Your task to perform on an android device: change text size in settings app Image 0: 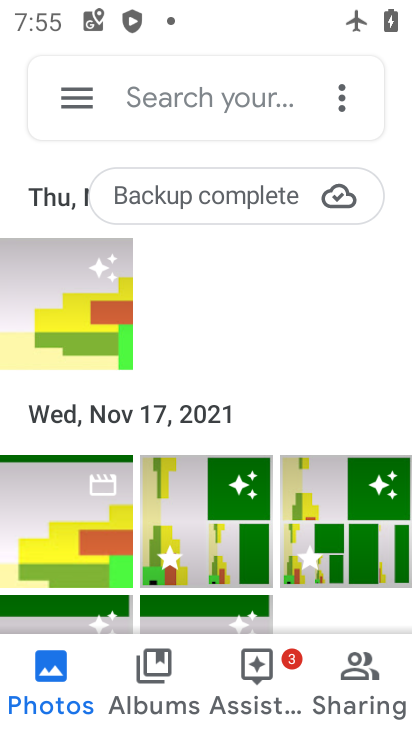
Step 0: press home button
Your task to perform on an android device: change text size in settings app Image 1: 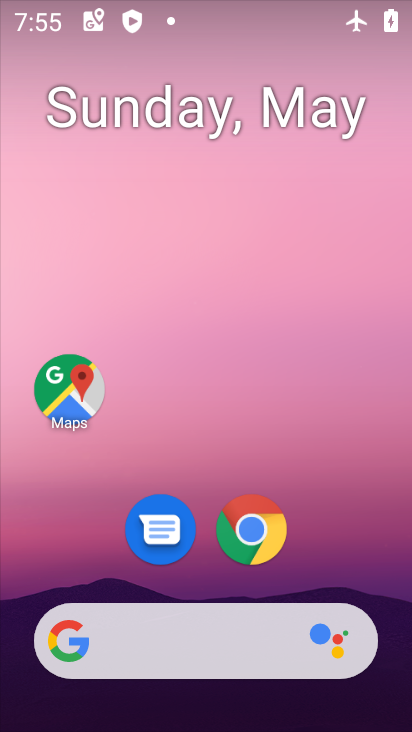
Step 1: drag from (355, 593) to (399, 6)
Your task to perform on an android device: change text size in settings app Image 2: 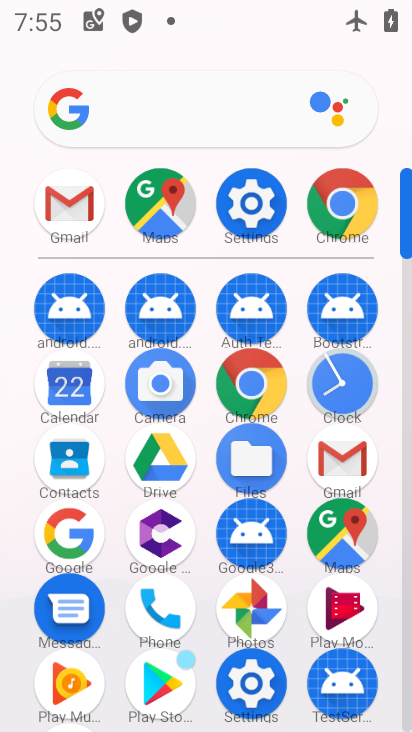
Step 2: click (255, 210)
Your task to perform on an android device: change text size in settings app Image 3: 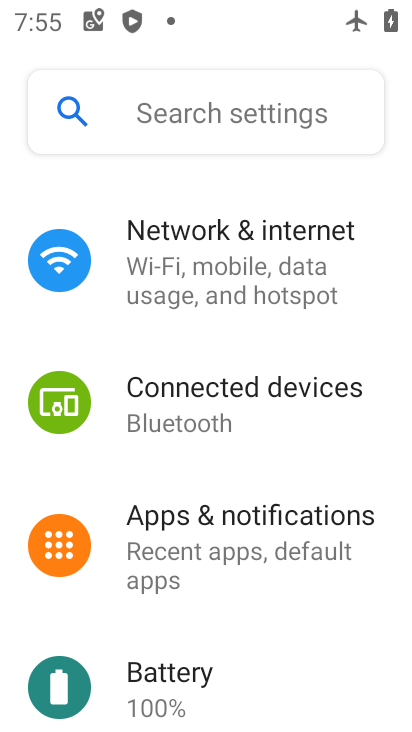
Step 3: drag from (365, 671) to (330, 163)
Your task to perform on an android device: change text size in settings app Image 4: 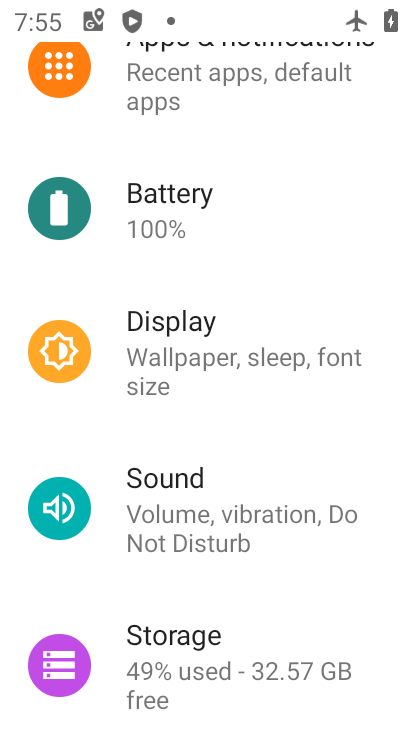
Step 4: click (152, 354)
Your task to perform on an android device: change text size in settings app Image 5: 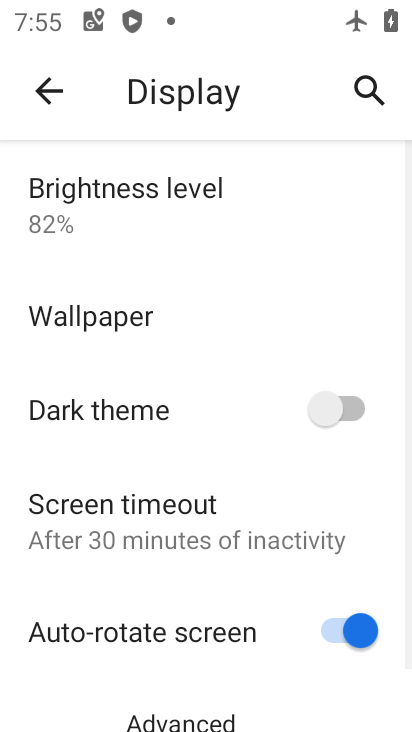
Step 5: drag from (144, 591) to (122, 140)
Your task to perform on an android device: change text size in settings app Image 6: 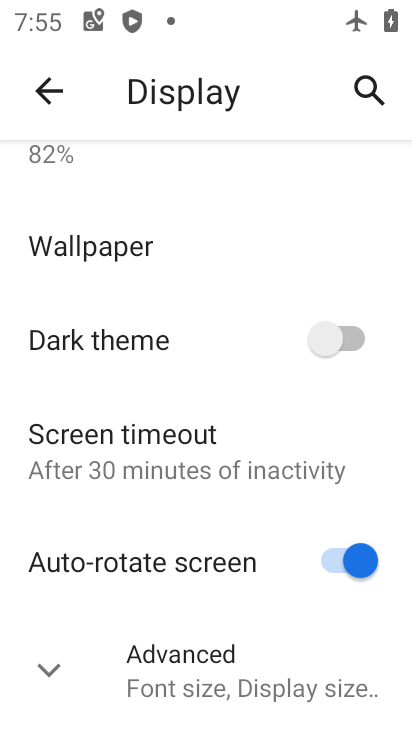
Step 6: click (50, 676)
Your task to perform on an android device: change text size in settings app Image 7: 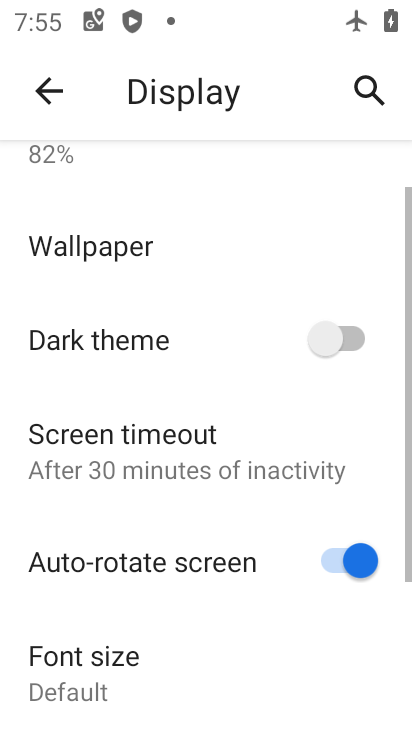
Step 7: drag from (161, 623) to (157, 197)
Your task to perform on an android device: change text size in settings app Image 8: 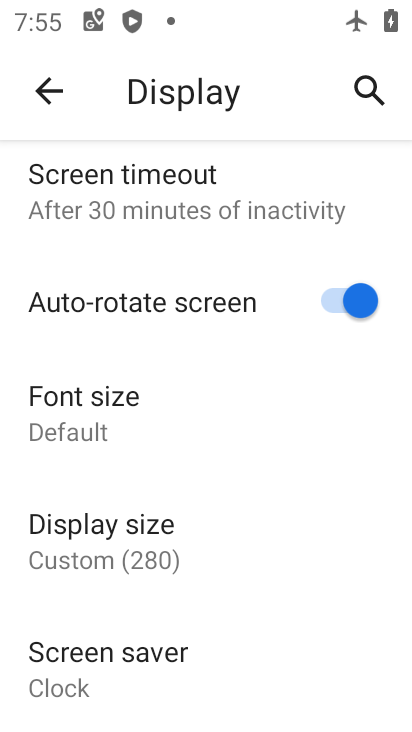
Step 8: click (55, 423)
Your task to perform on an android device: change text size in settings app Image 9: 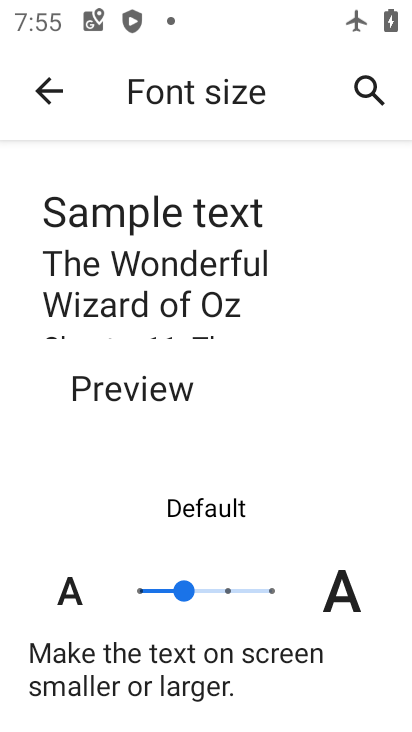
Step 9: click (137, 589)
Your task to perform on an android device: change text size in settings app Image 10: 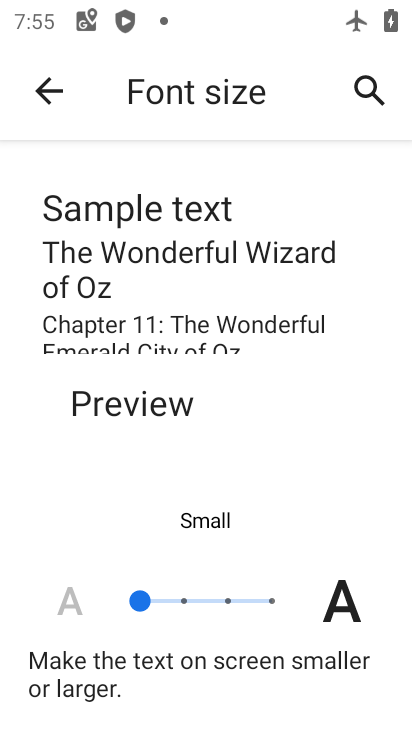
Step 10: task complete